Your task to perform on an android device: change text size in settings app Image 0: 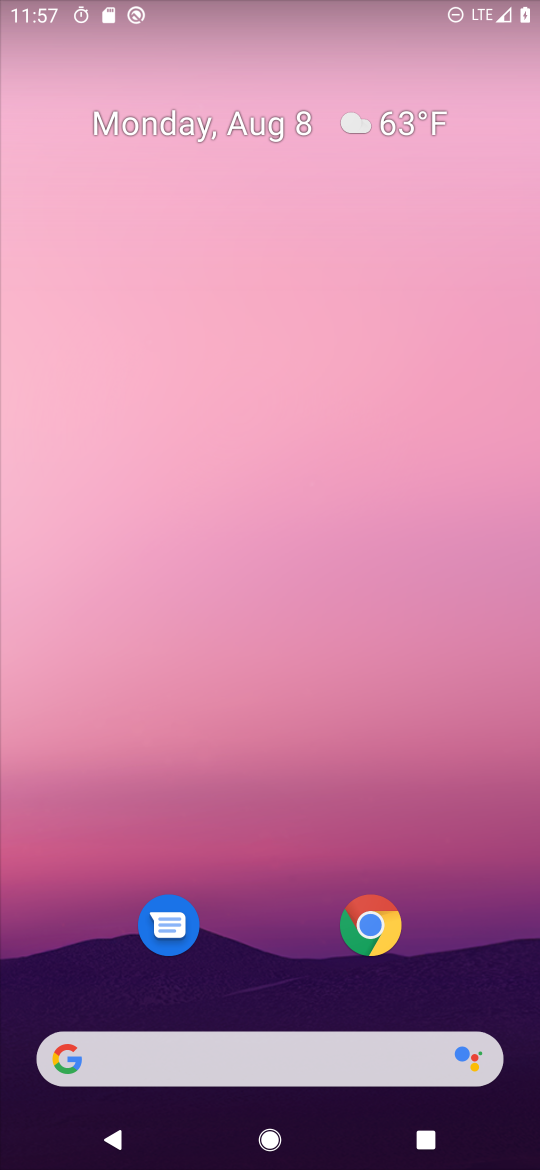
Step 0: drag from (229, 968) to (339, 229)
Your task to perform on an android device: change text size in settings app Image 1: 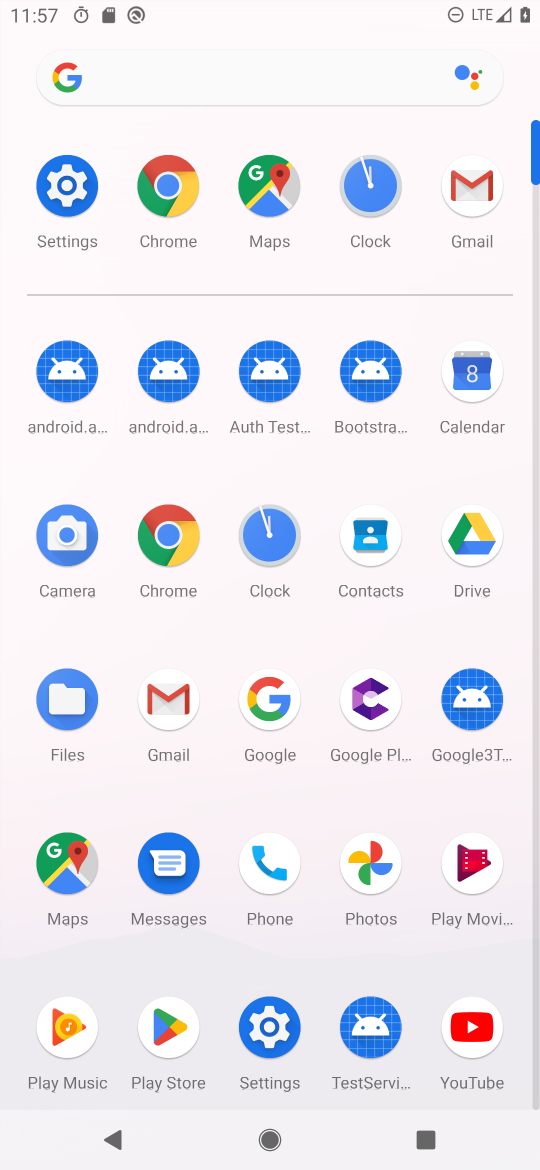
Step 1: click (62, 179)
Your task to perform on an android device: change text size in settings app Image 2: 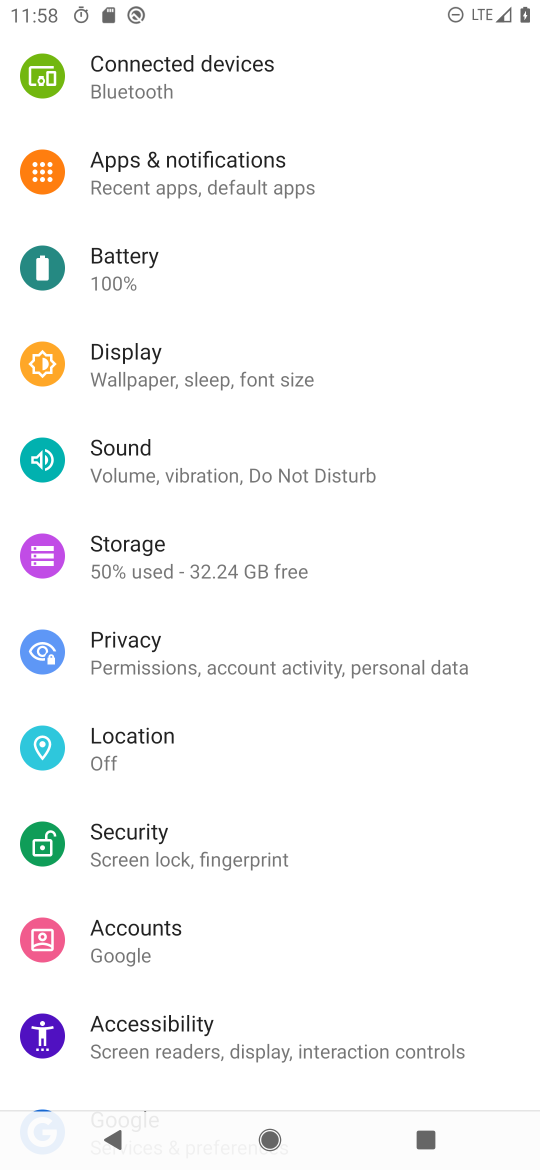
Step 2: drag from (185, 951) to (245, 586)
Your task to perform on an android device: change text size in settings app Image 3: 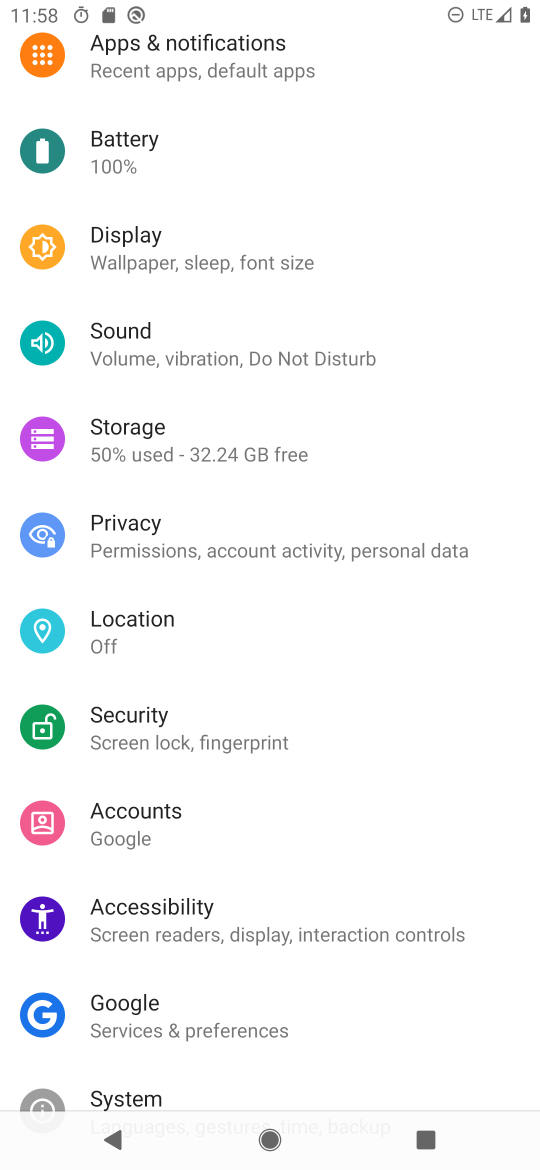
Step 3: click (196, 242)
Your task to perform on an android device: change text size in settings app Image 4: 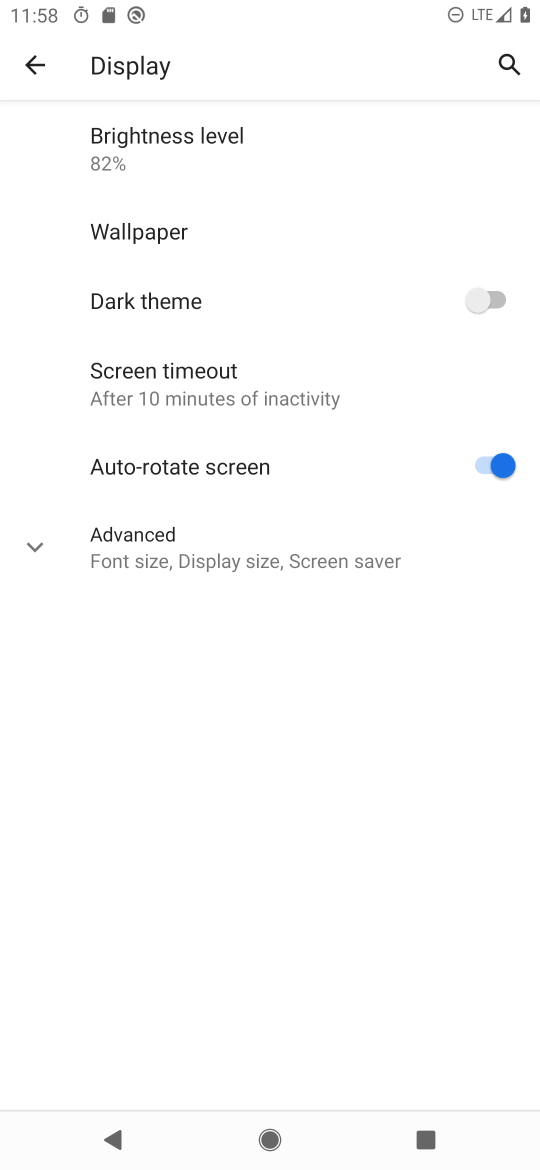
Step 4: click (187, 535)
Your task to perform on an android device: change text size in settings app Image 5: 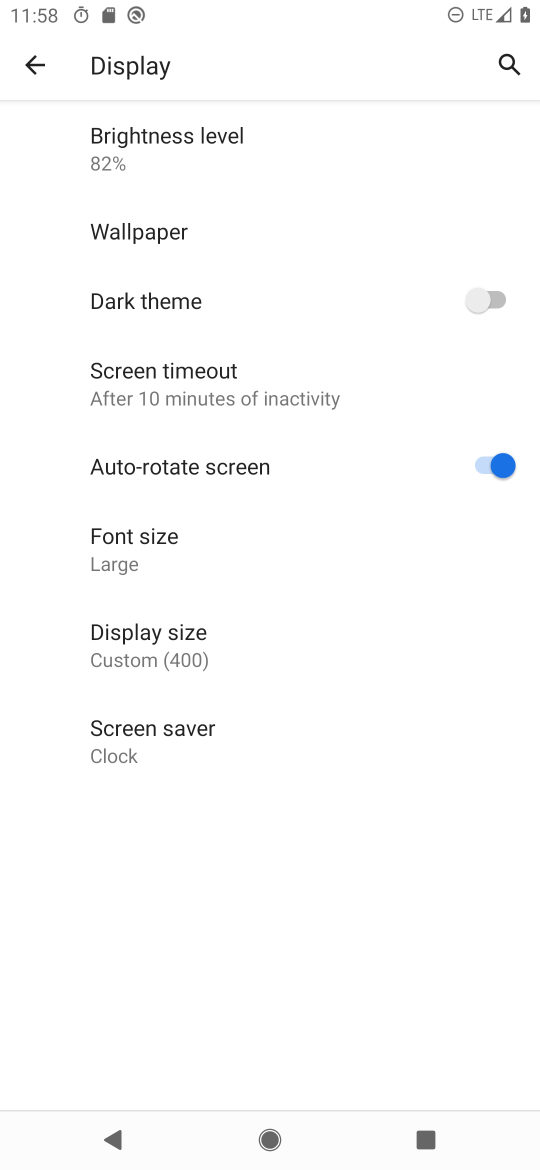
Step 5: click (161, 545)
Your task to perform on an android device: change text size in settings app Image 6: 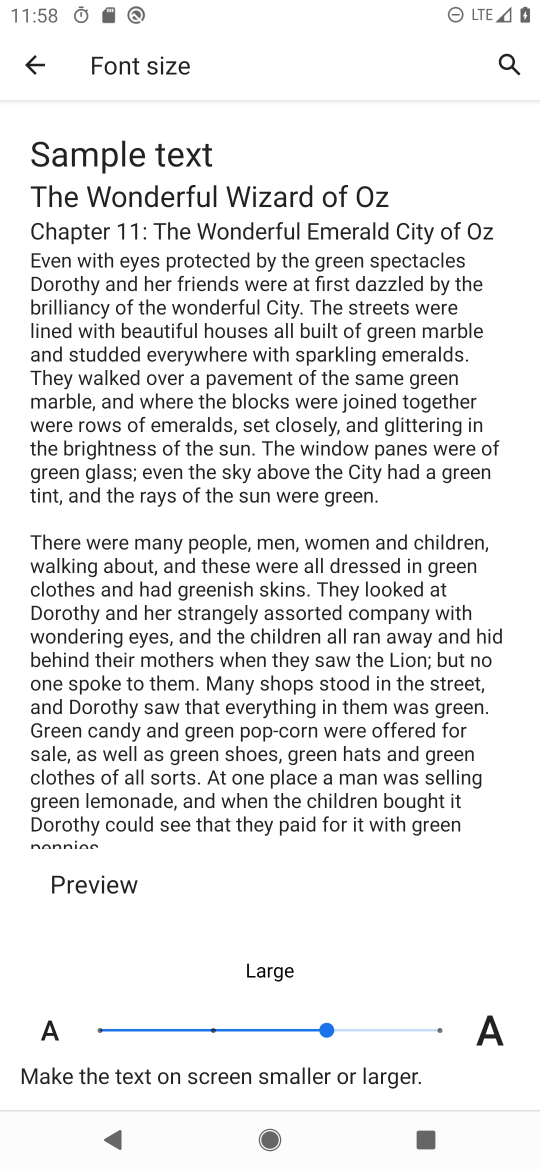
Step 6: click (196, 1019)
Your task to perform on an android device: change text size in settings app Image 7: 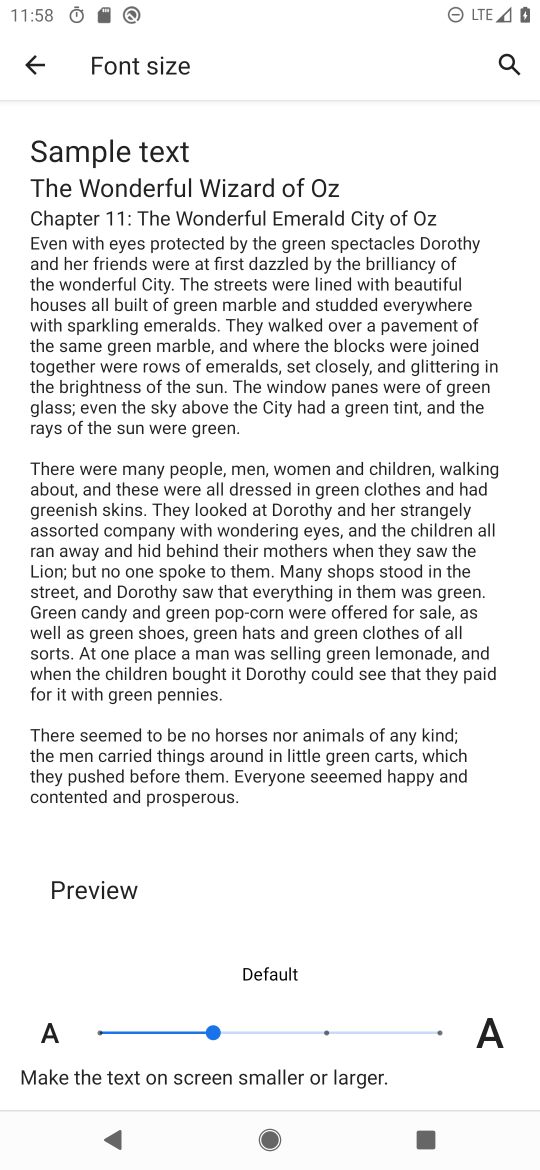
Step 7: task complete